Your task to perform on an android device: Go to accessibility settings Image 0: 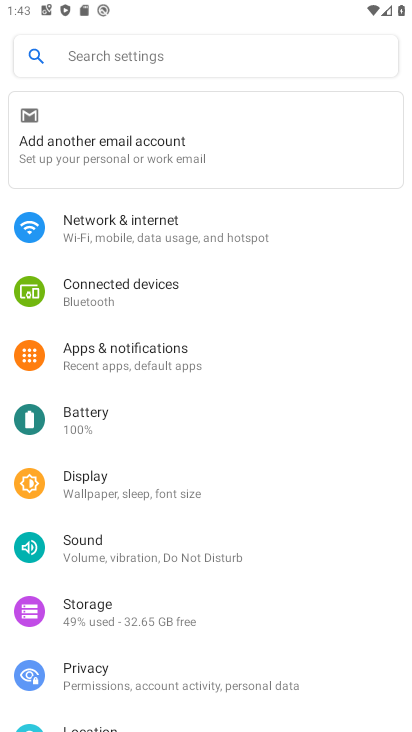
Step 0: drag from (162, 613) to (253, 25)
Your task to perform on an android device: Go to accessibility settings Image 1: 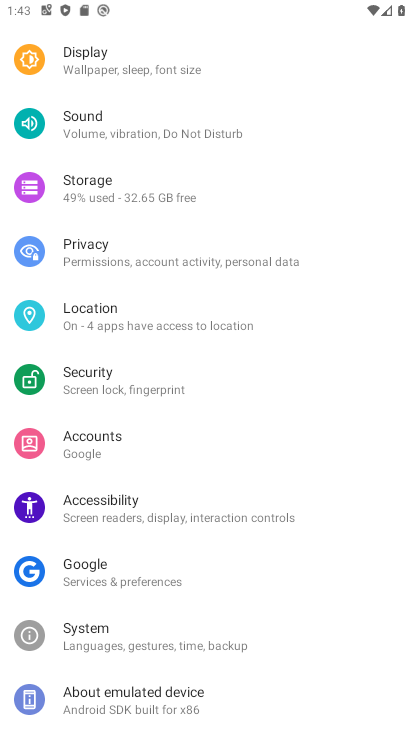
Step 1: click (150, 519)
Your task to perform on an android device: Go to accessibility settings Image 2: 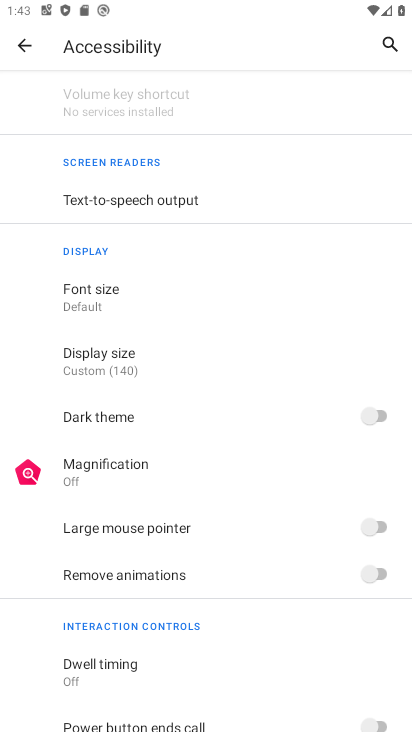
Step 2: task complete